Your task to perform on an android device: When is my next appointment? Image 0: 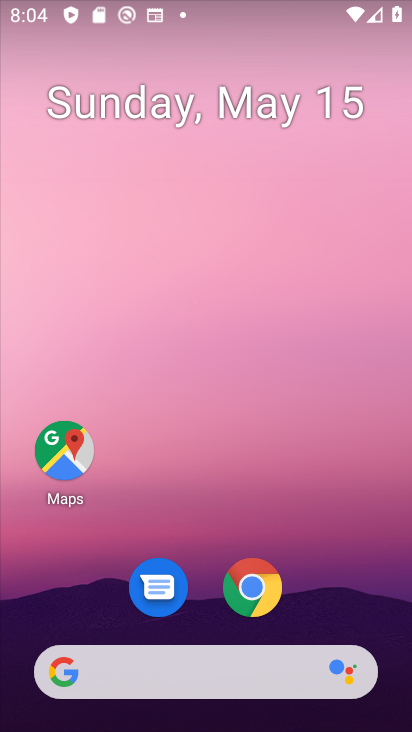
Step 0: drag from (208, 625) to (229, 286)
Your task to perform on an android device: When is my next appointment? Image 1: 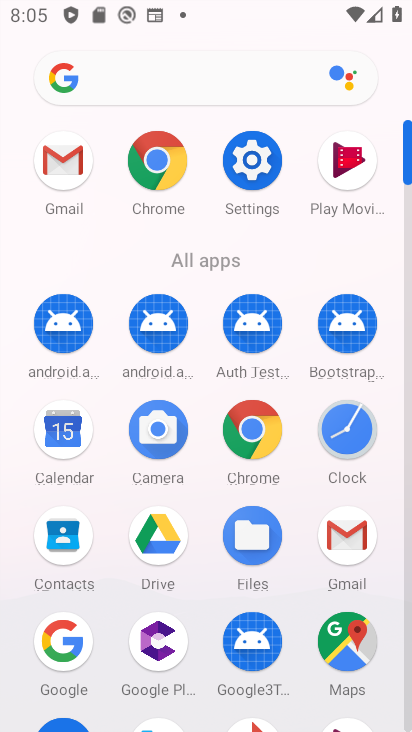
Step 1: click (60, 428)
Your task to perform on an android device: When is my next appointment? Image 2: 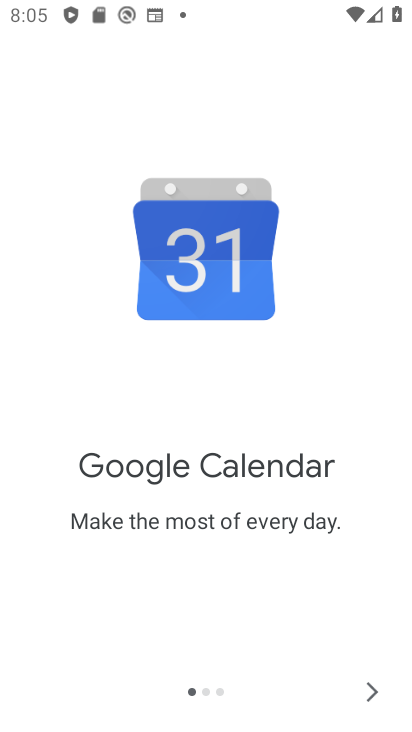
Step 2: click (373, 680)
Your task to perform on an android device: When is my next appointment? Image 3: 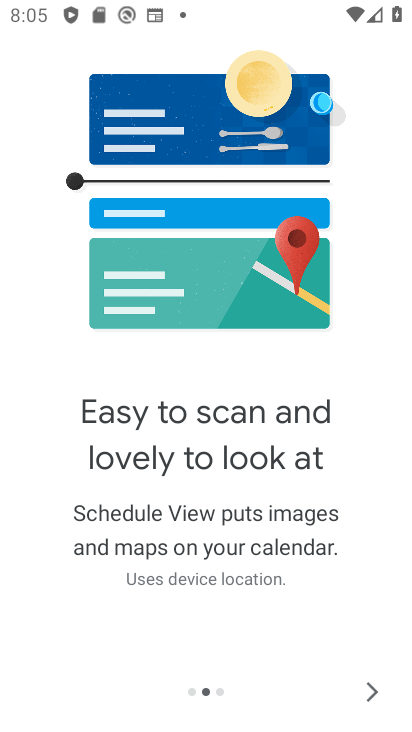
Step 3: click (374, 686)
Your task to perform on an android device: When is my next appointment? Image 4: 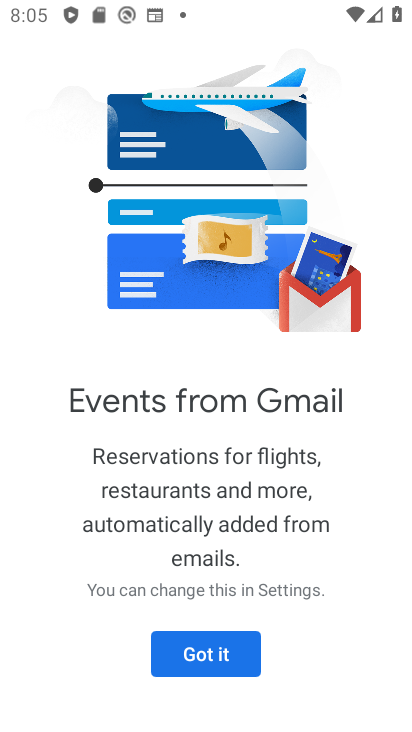
Step 4: click (210, 666)
Your task to perform on an android device: When is my next appointment? Image 5: 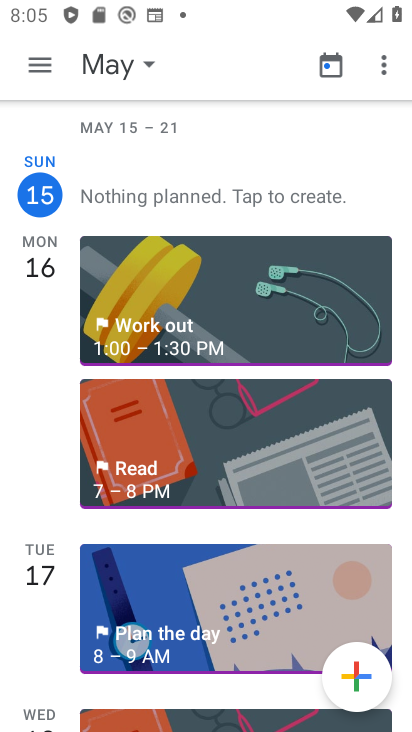
Step 5: click (150, 69)
Your task to perform on an android device: When is my next appointment? Image 6: 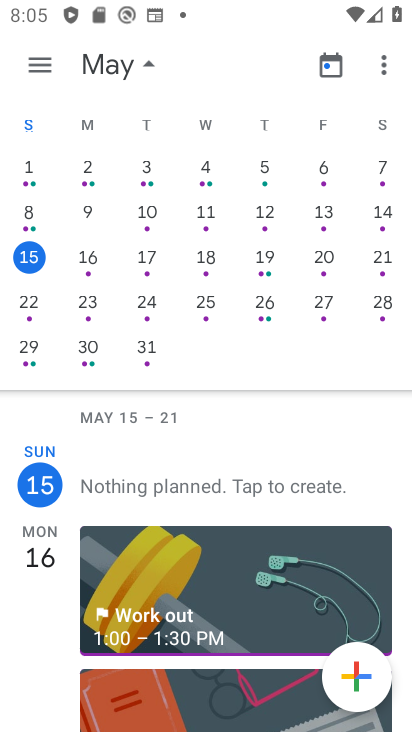
Step 6: click (150, 270)
Your task to perform on an android device: When is my next appointment? Image 7: 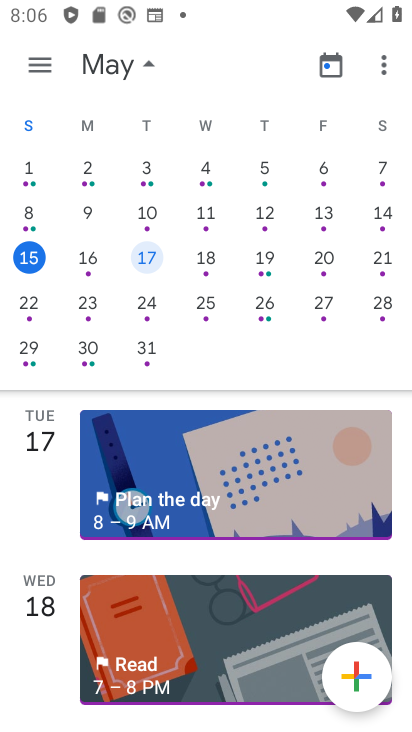
Step 7: click (86, 261)
Your task to perform on an android device: When is my next appointment? Image 8: 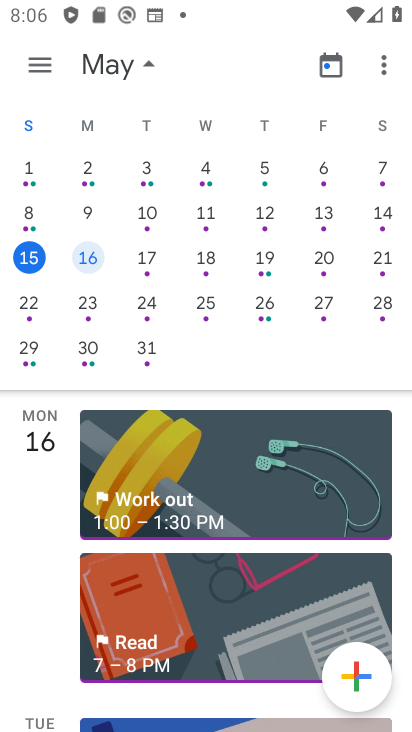
Step 8: click (214, 258)
Your task to perform on an android device: When is my next appointment? Image 9: 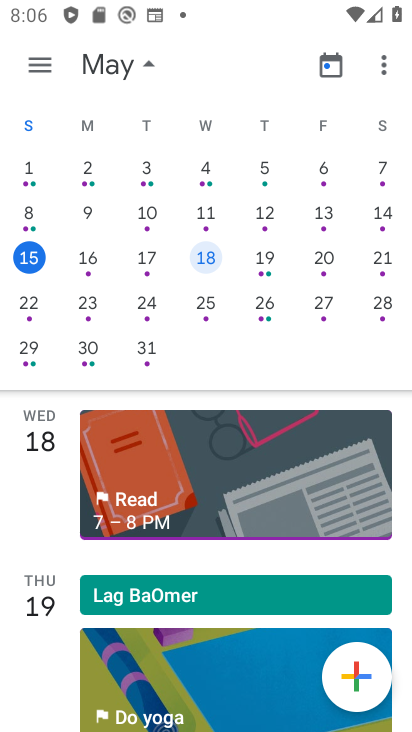
Step 9: click (267, 262)
Your task to perform on an android device: When is my next appointment? Image 10: 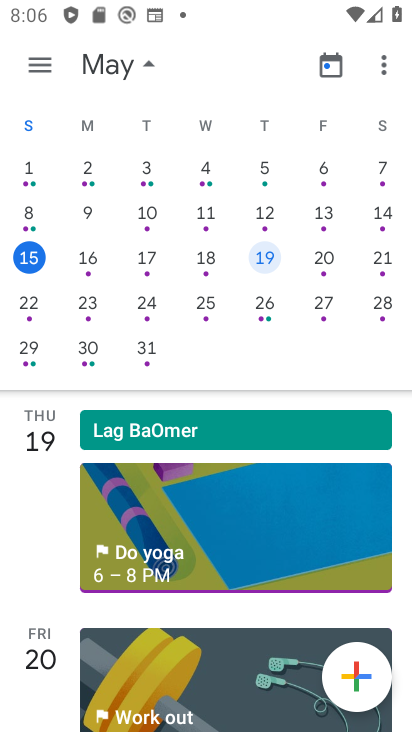
Step 10: click (309, 252)
Your task to perform on an android device: When is my next appointment? Image 11: 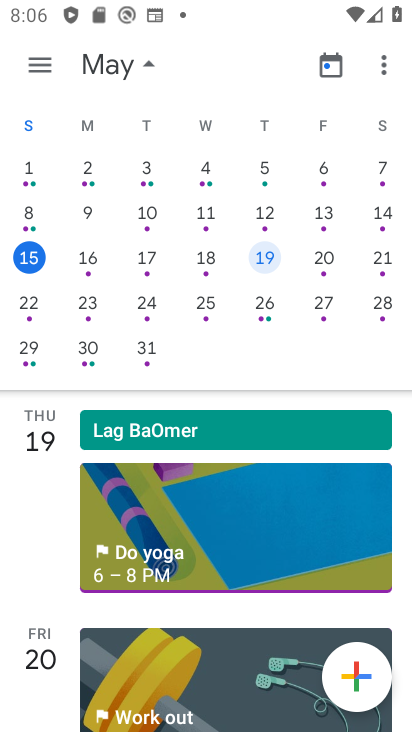
Step 11: click (386, 264)
Your task to perform on an android device: When is my next appointment? Image 12: 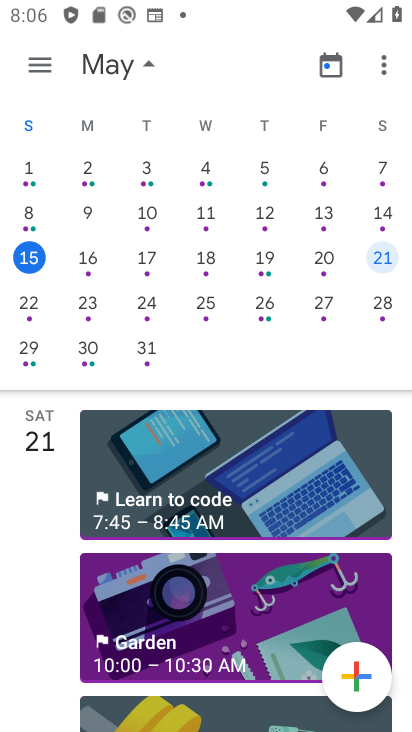
Step 12: click (34, 301)
Your task to perform on an android device: When is my next appointment? Image 13: 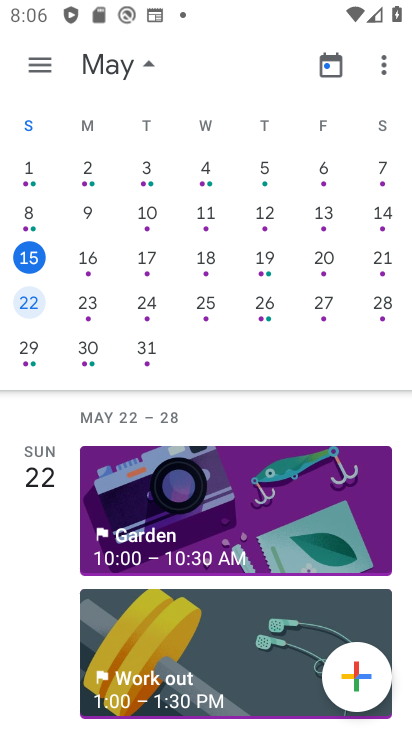
Step 13: click (86, 251)
Your task to perform on an android device: When is my next appointment? Image 14: 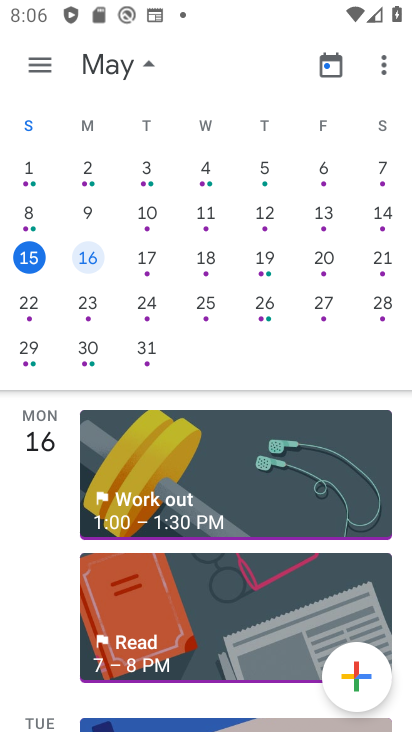
Step 14: click (129, 256)
Your task to perform on an android device: When is my next appointment? Image 15: 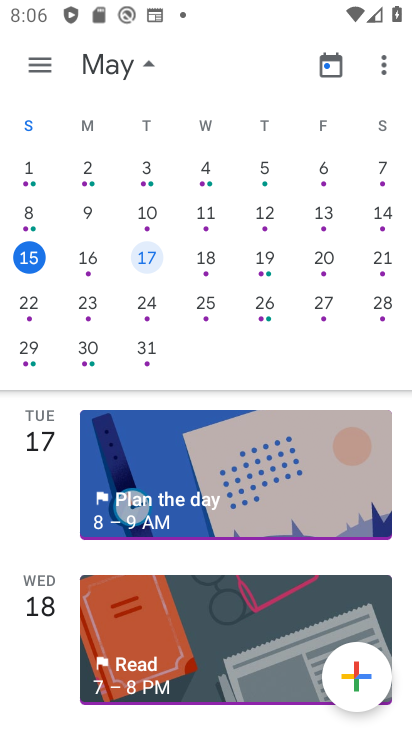
Step 15: click (204, 261)
Your task to perform on an android device: When is my next appointment? Image 16: 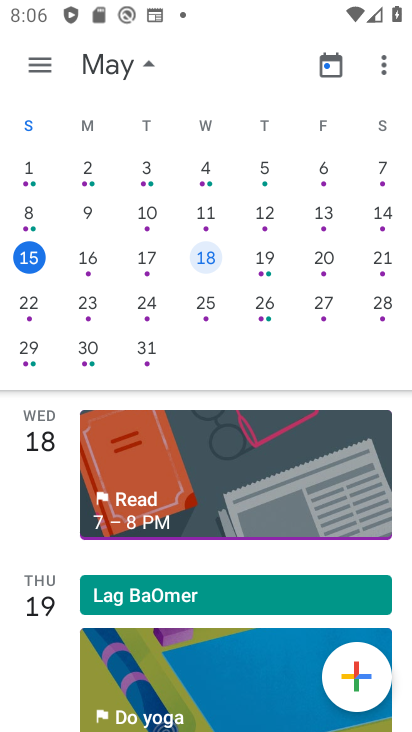
Step 16: click (280, 266)
Your task to perform on an android device: When is my next appointment? Image 17: 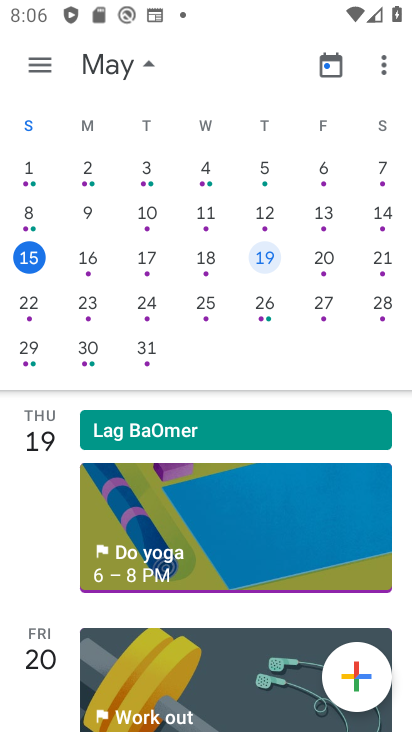
Step 17: click (320, 268)
Your task to perform on an android device: When is my next appointment? Image 18: 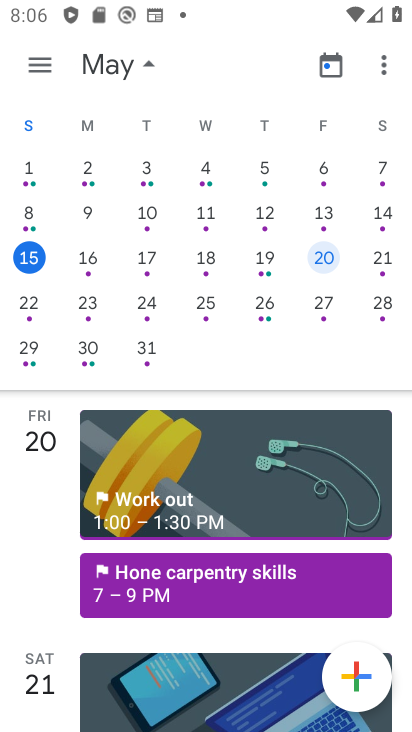
Step 18: click (386, 266)
Your task to perform on an android device: When is my next appointment? Image 19: 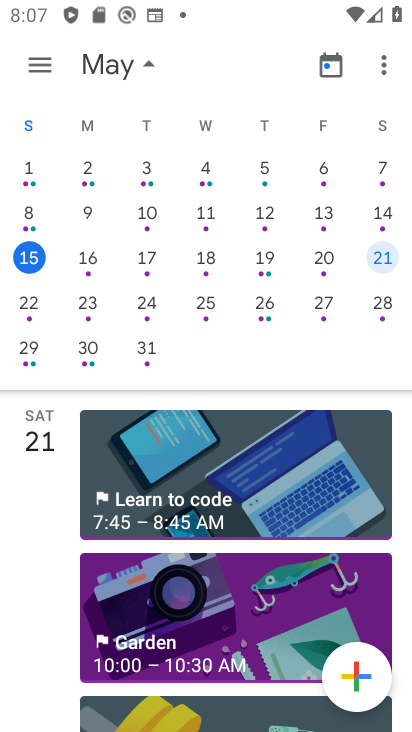
Step 19: click (31, 310)
Your task to perform on an android device: When is my next appointment? Image 20: 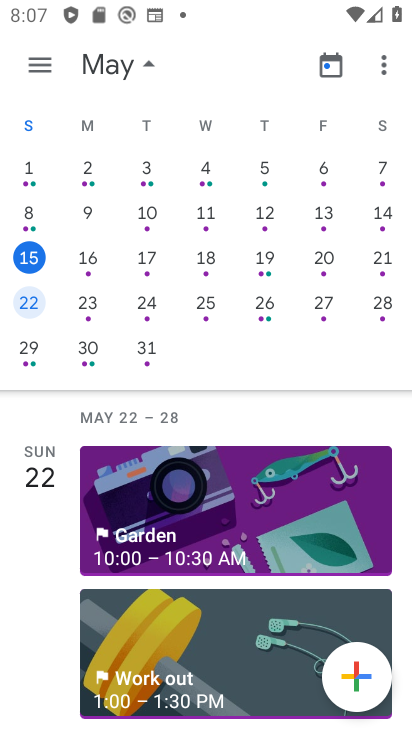
Step 20: click (102, 305)
Your task to perform on an android device: When is my next appointment? Image 21: 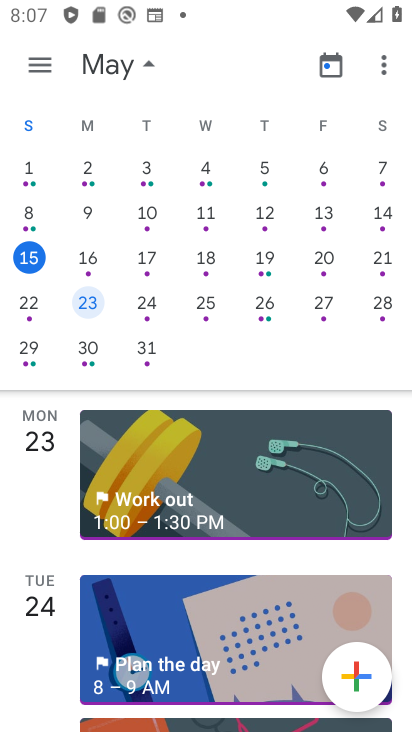
Step 21: click (159, 304)
Your task to perform on an android device: When is my next appointment? Image 22: 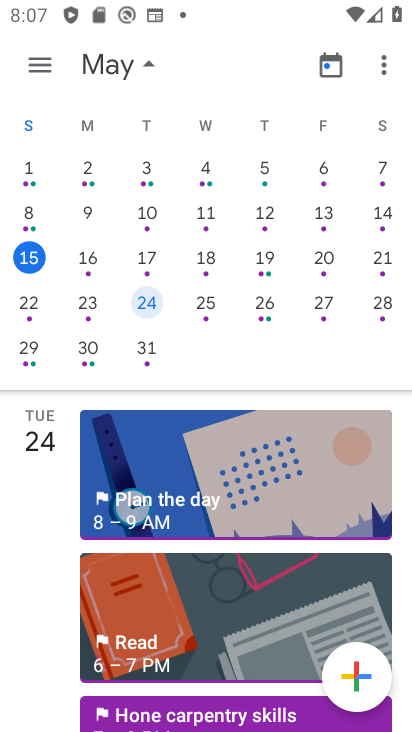
Step 22: click (232, 302)
Your task to perform on an android device: When is my next appointment? Image 23: 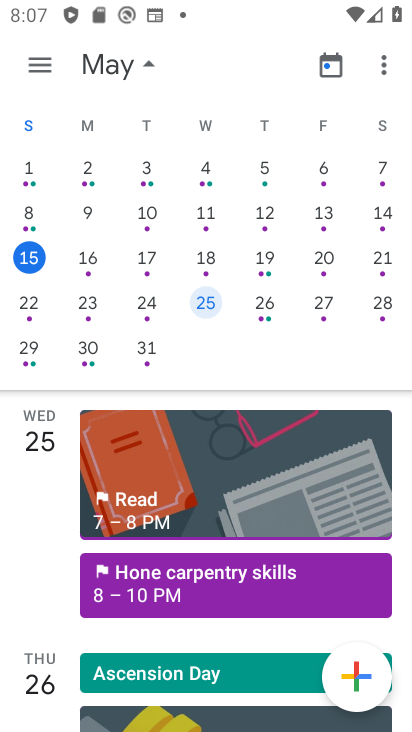
Step 23: task complete